Your task to perform on an android device: find snoozed emails in the gmail app Image 0: 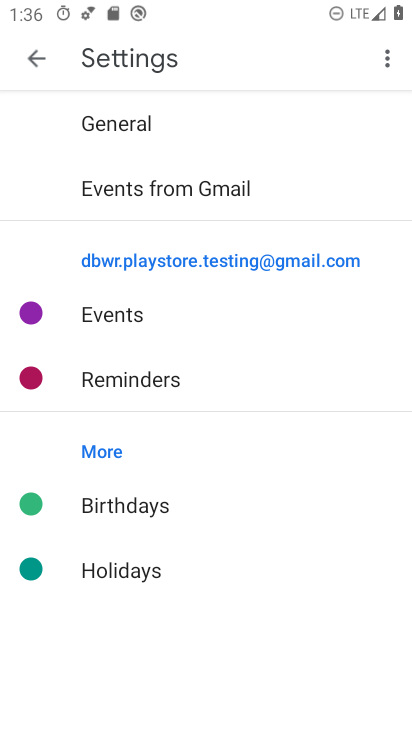
Step 0: press home button
Your task to perform on an android device: find snoozed emails in the gmail app Image 1: 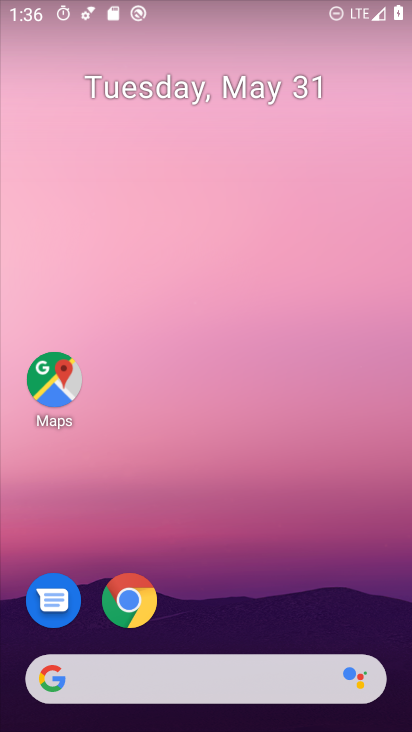
Step 1: drag from (197, 714) to (204, 0)
Your task to perform on an android device: find snoozed emails in the gmail app Image 2: 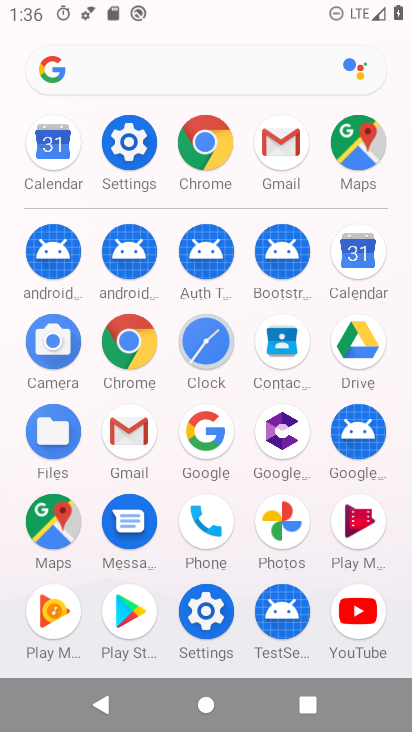
Step 2: click (132, 428)
Your task to perform on an android device: find snoozed emails in the gmail app Image 3: 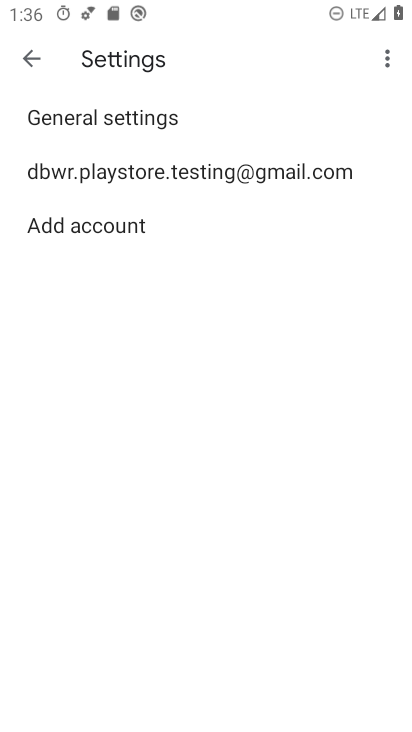
Step 3: click (35, 52)
Your task to perform on an android device: find snoozed emails in the gmail app Image 4: 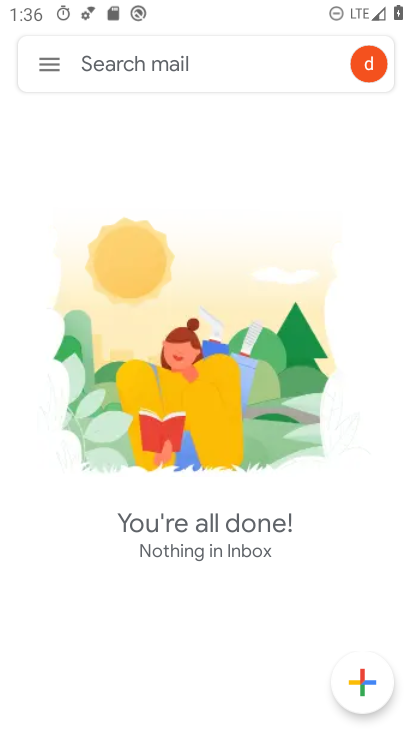
Step 4: click (42, 55)
Your task to perform on an android device: find snoozed emails in the gmail app Image 5: 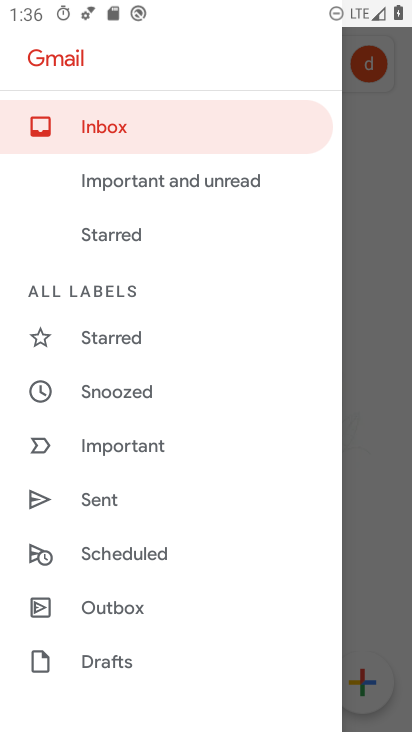
Step 5: click (119, 393)
Your task to perform on an android device: find snoozed emails in the gmail app Image 6: 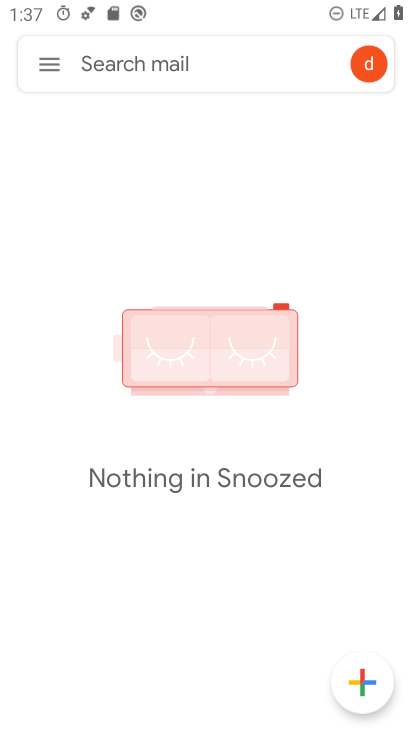
Step 6: task complete